Your task to perform on an android device: empty trash in google photos Image 0: 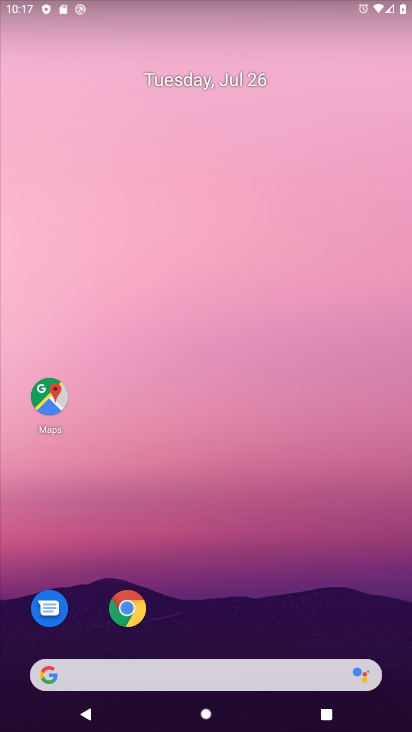
Step 0: drag from (231, 723) to (238, 82)
Your task to perform on an android device: empty trash in google photos Image 1: 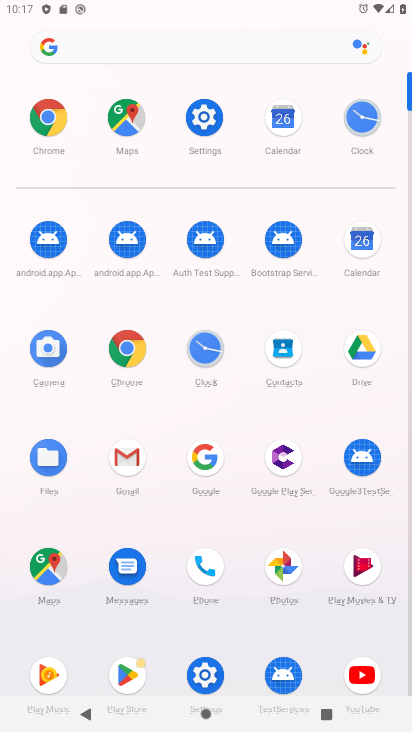
Step 1: click (278, 559)
Your task to perform on an android device: empty trash in google photos Image 2: 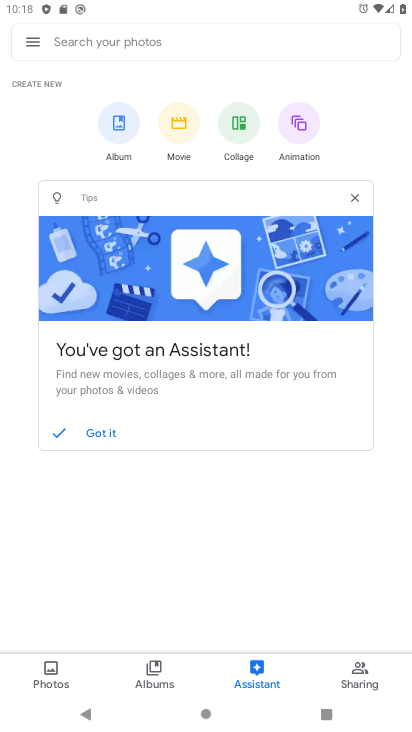
Step 2: click (33, 40)
Your task to perform on an android device: empty trash in google photos Image 3: 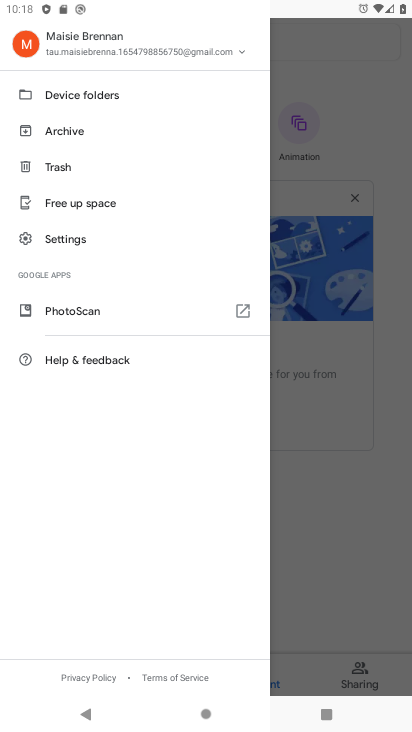
Step 3: click (59, 161)
Your task to perform on an android device: empty trash in google photos Image 4: 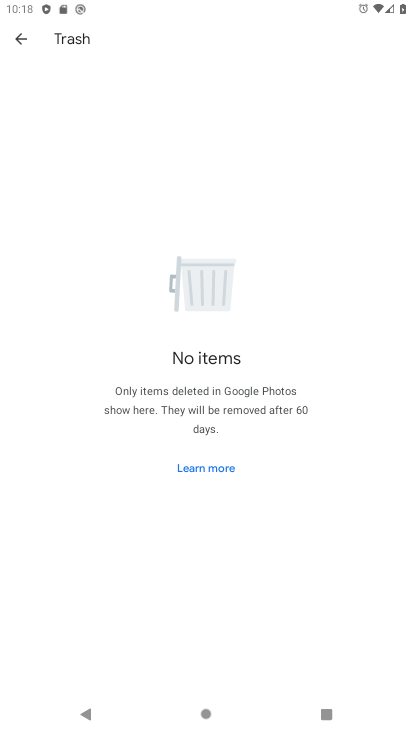
Step 4: task complete